Your task to perform on an android device: What is the news today? Image 0: 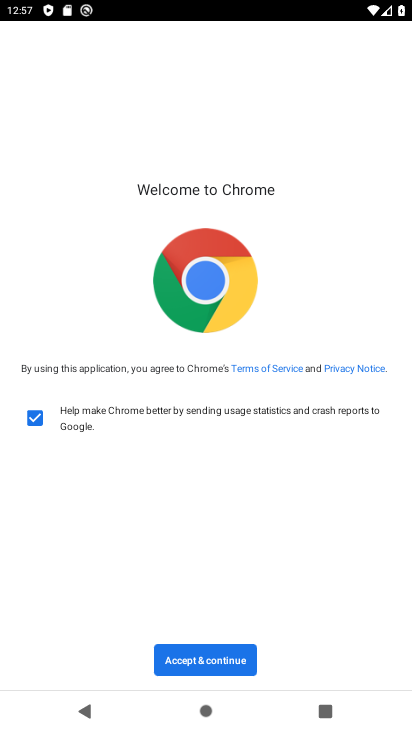
Step 0: click (247, 651)
Your task to perform on an android device: What is the news today? Image 1: 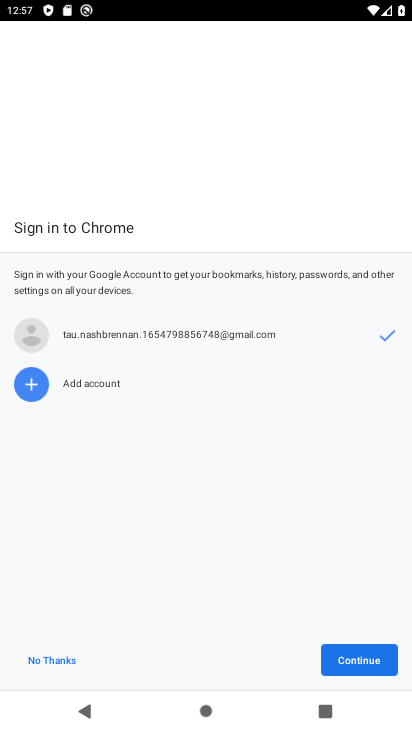
Step 1: click (344, 653)
Your task to perform on an android device: What is the news today? Image 2: 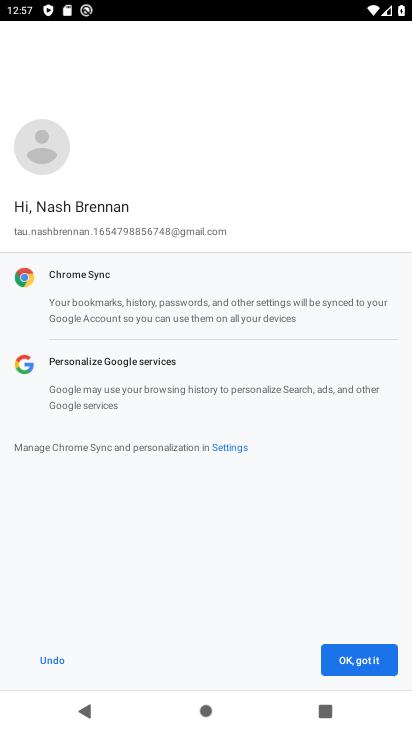
Step 2: click (356, 657)
Your task to perform on an android device: What is the news today? Image 3: 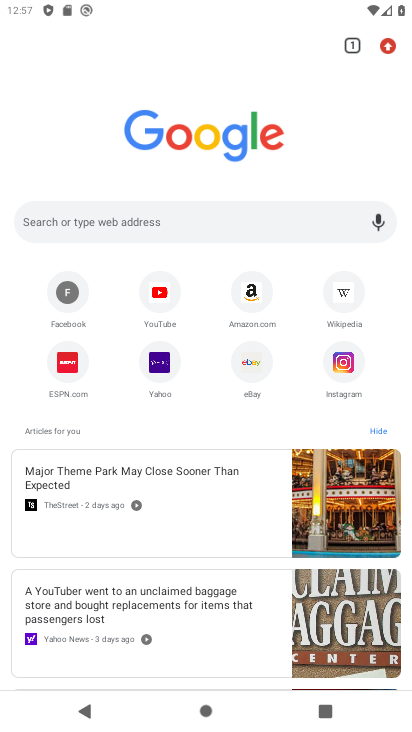
Step 3: click (260, 222)
Your task to perform on an android device: What is the news today? Image 4: 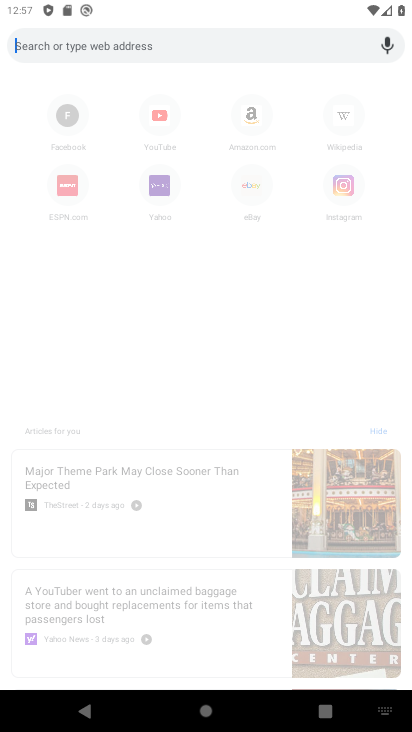
Step 4: type "What is the news today?"
Your task to perform on an android device: What is the news today? Image 5: 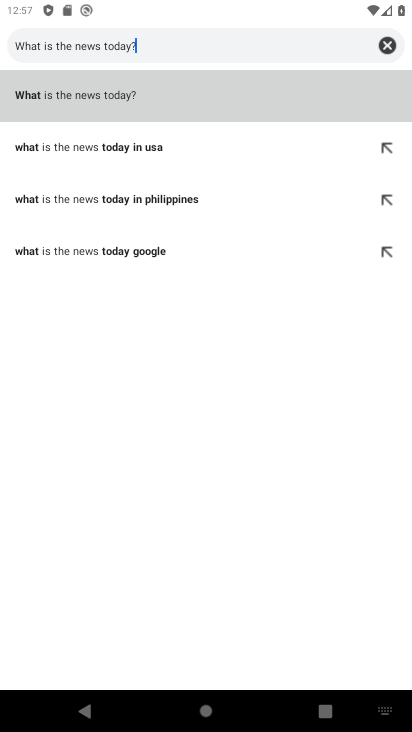
Step 5: click (170, 98)
Your task to perform on an android device: What is the news today? Image 6: 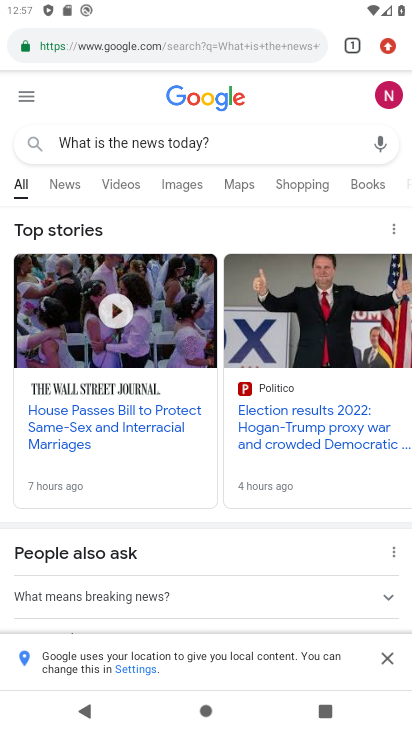
Step 6: task complete